Your task to perform on an android device: Open internet settings Image 0: 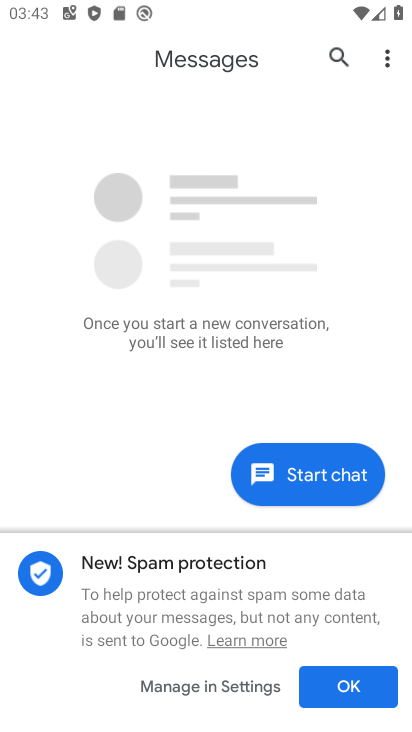
Step 0: press home button
Your task to perform on an android device: Open internet settings Image 1: 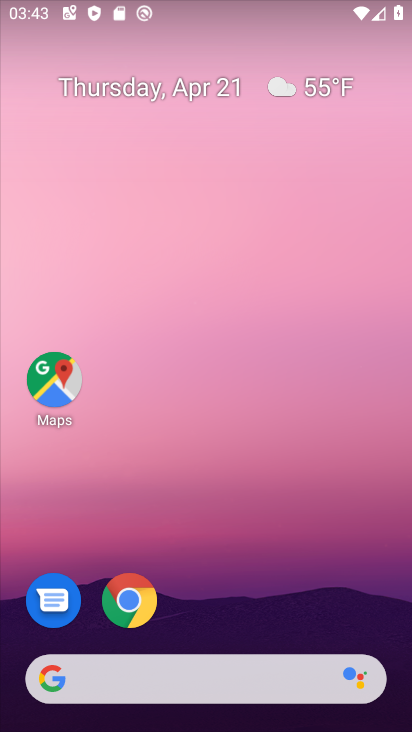
Step 1: drag from (203, 574) to (198, 141)
Your task to perform on an android device: Open internet settings Image 2: 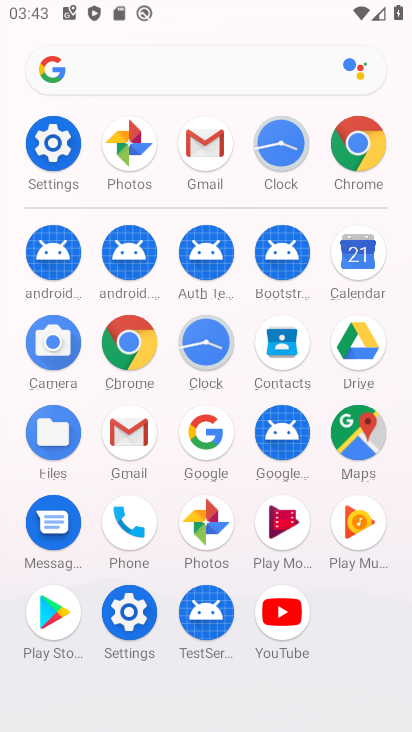
Step 2: click (42, 149)
Your task to perform on an android device: Open internet settings Image 3: 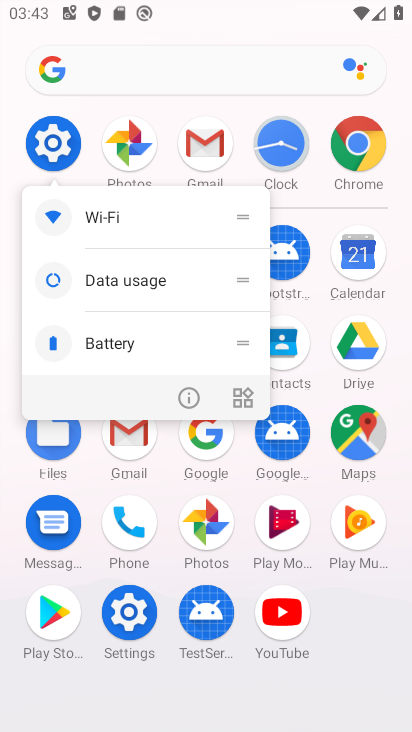
Step 3: click (42, 149)
Your task to perform on an android device: Open internet settings Image 4: 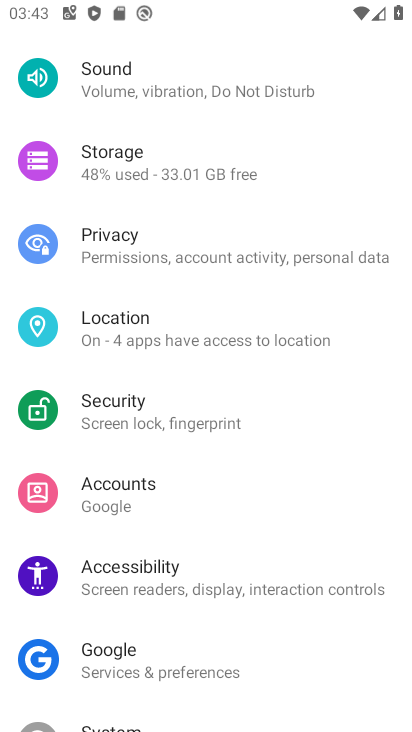
Step 4: drag from (120, 254) to (180, 358)
Your task to perform on an android device: Open internet settings Image 5: 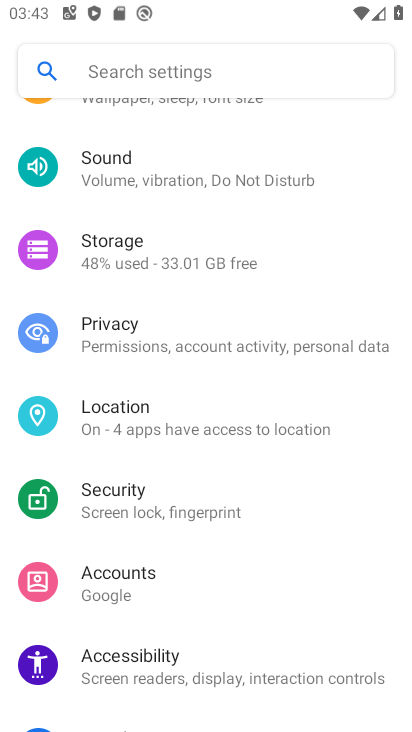
Step 5: drag from (132, 291) to (163, 374)
Your task to perform on an android device: Open internet settings Image 6: 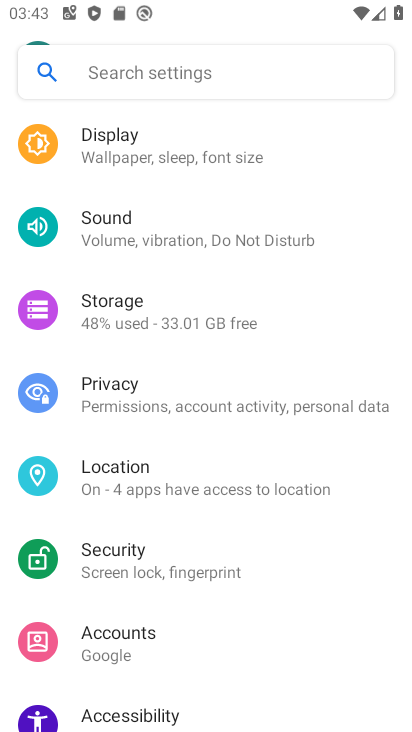
Step 6: drag from (146, 329) to (178, 397)
Your task to perform on an android device: Open internet settings Image 7: 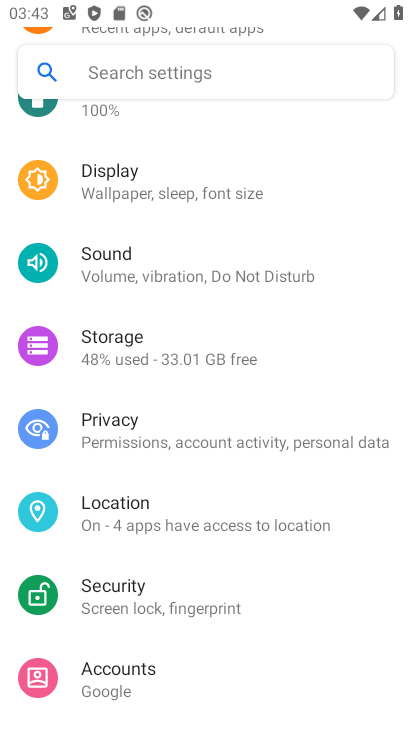
Step 7: drag from (141, 316) to (180, 494)
Your task to perform on an android device: Open internet settings Image 8: 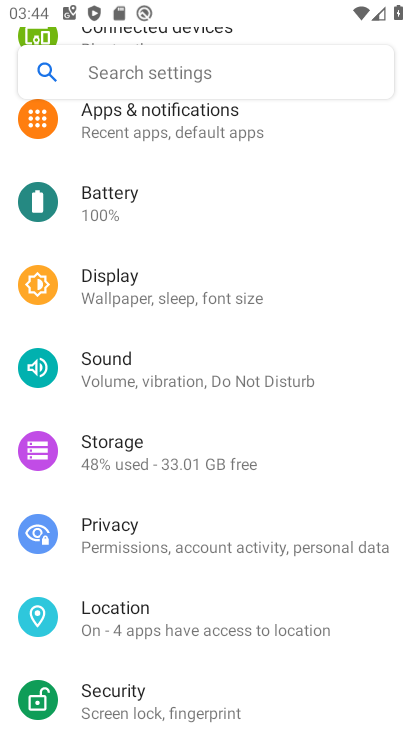
Step 8: drag from (199, 212) to (247, 339)
Your task to perform on an android device: Open internet settings Image 9: 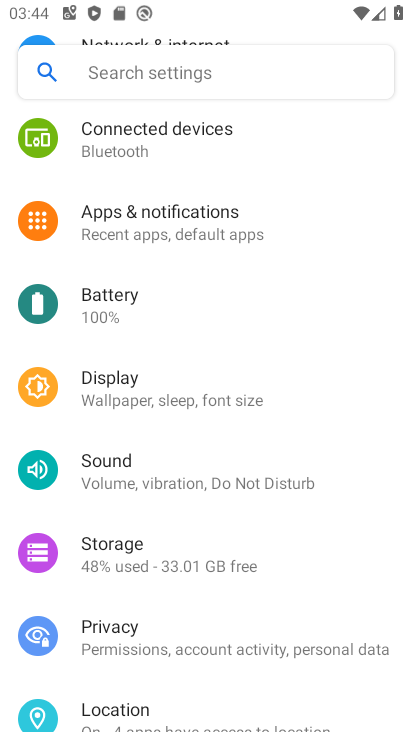
Step 9: drag from (153, 257) to (195, 386)
Your task to perform on an android device: Open internet settings Image 10: 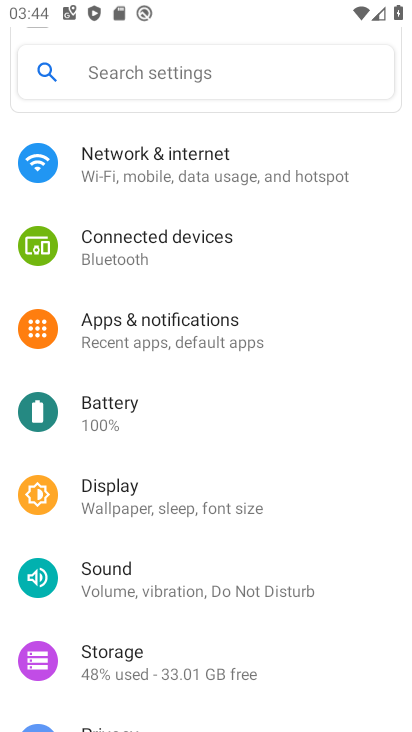
Step 10: click (188, 170)
Your task to perform on an android device: Open internet settings Image 11: 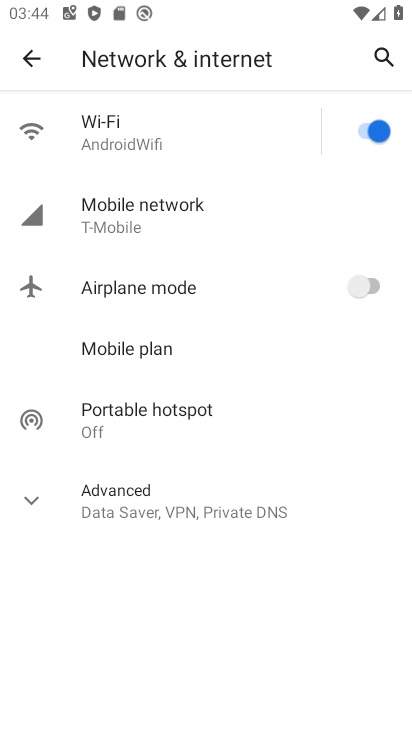
Step 11: click (126, 223)
Your task to perform on an android device: Open internet settings Image 12: 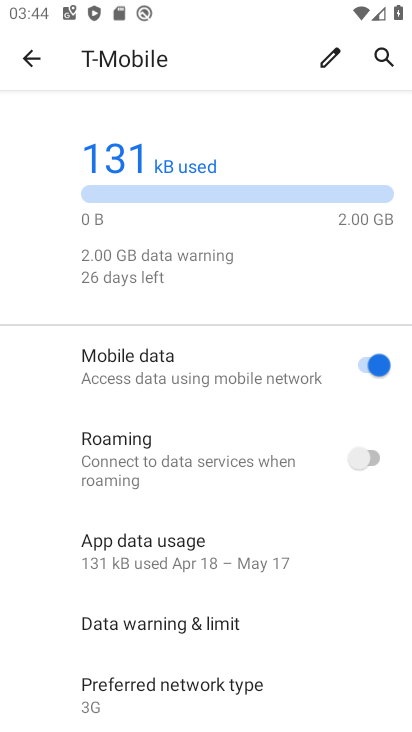
Step 12: task complete